Your task to perform on an android device: turn off sleep mode Image 0: 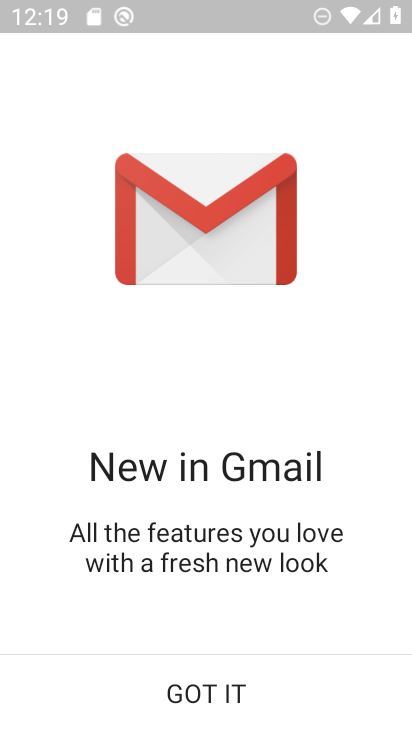
Step 0: press home button
Your task to perform on an android device: turn off sleep mode Image 1: 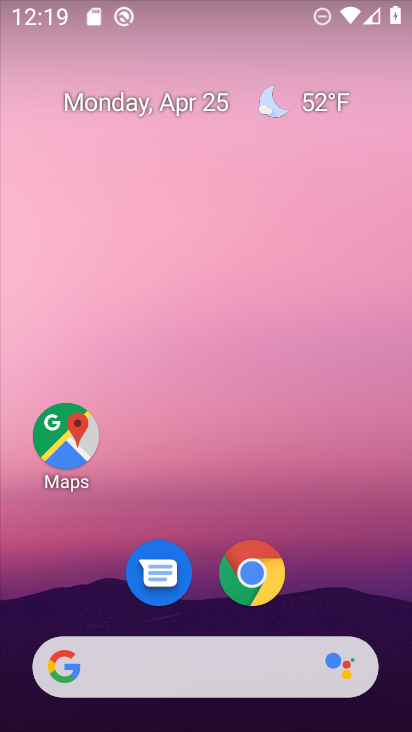
Step 1: drag from (215, 709) to (202, 120)
Your task to perform on an android device: turn off sleep mode Image 2: 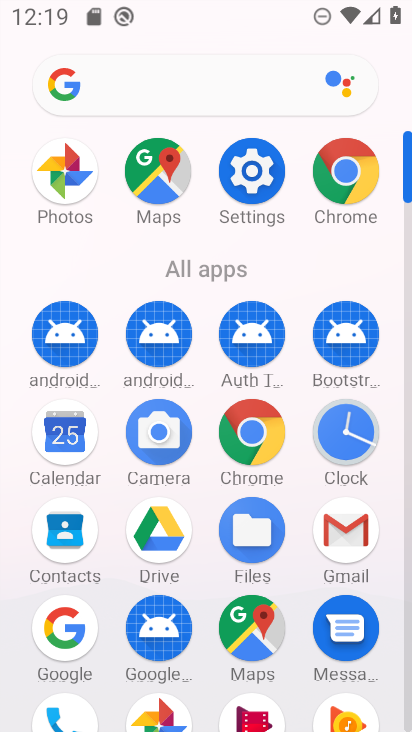
Step 2: click (248, 170)
Your task to perform on an android device: turn off sleep mode Image 3: 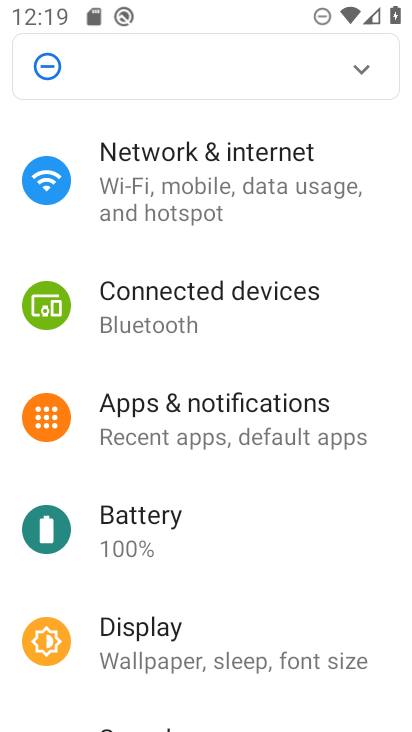
Step 3: drag from (237, 635) to (213, 224)
Your task to perform on an android device: turn off sleep mode Image 4: 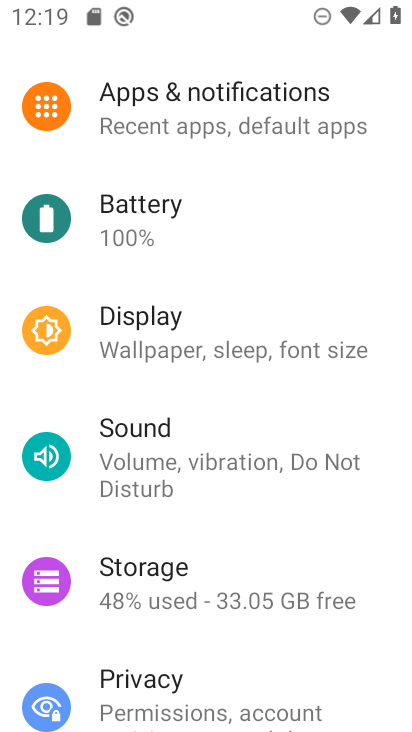
Step 4: click (194, 342)
Your task to perform on an android device: turn off sleep mode Image 5: 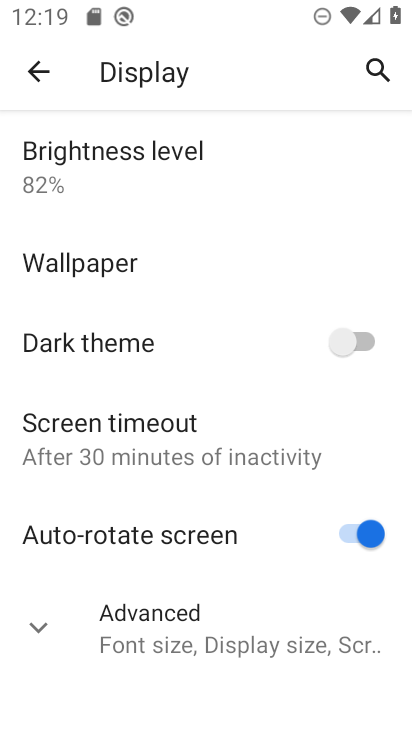
Step 5: click (33, 67)
Your task to perform on an android device: turn off sleep mode Image 6: 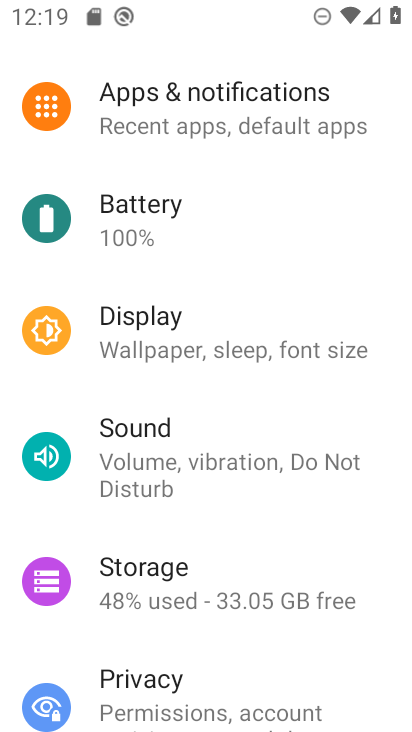
Step 6: task complete